Your task to perform on an android device: turn off smart reply in the gmail app Image 0: 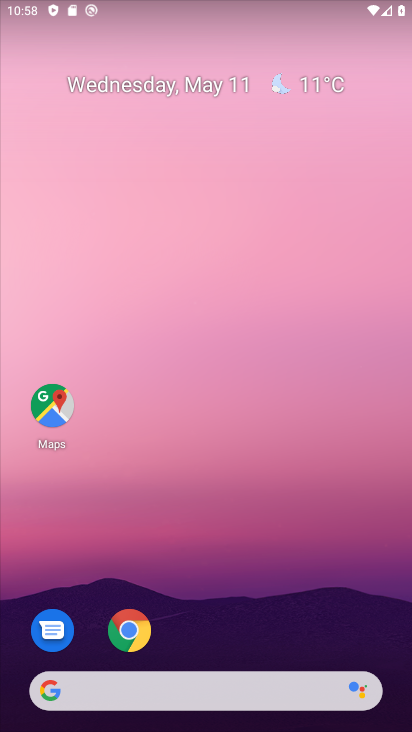
Step 0: drag from (186, 652) to (186, 298)
Your task to perform on an android device: turn off smart reply in the gmail app Image 1: 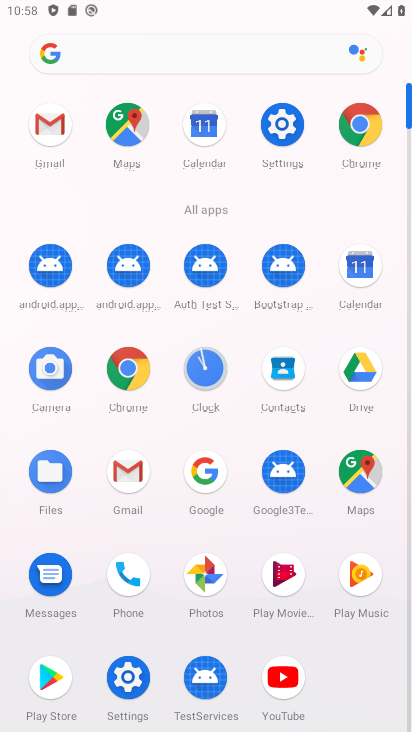
Step 1: click (129, 477)
Your task to perform on an android device: turn off smart reply in the gmail app Image 2: 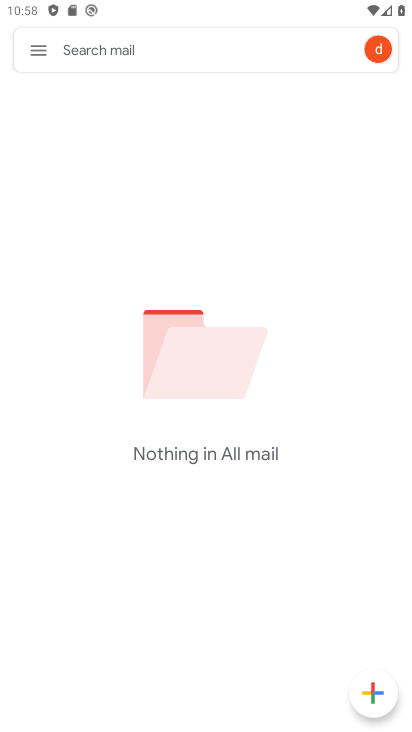
Step 2: click (37, 46)
Your task to perform on an android device: turn off smart reply in the gmail app Image 3: 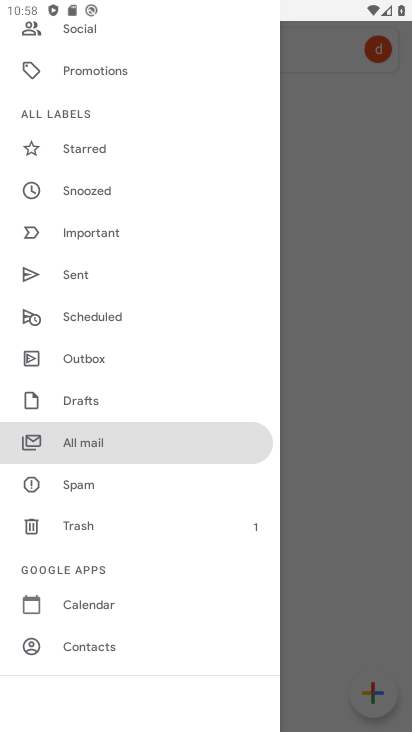
Step 3: drag from (113, 597) to (163, 154)
Your task to perform on an android device: turn off smart reply in the gmail app Image 4: 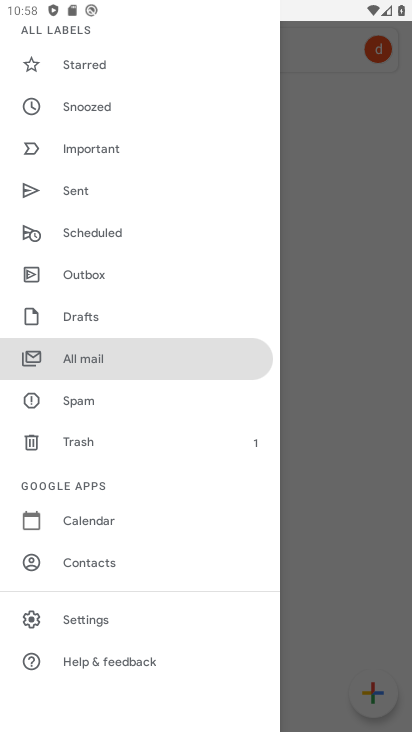
Step 4: click (82, 623)
Your task to perform on an android device: turn off smart reply in the gmail app Image 5: 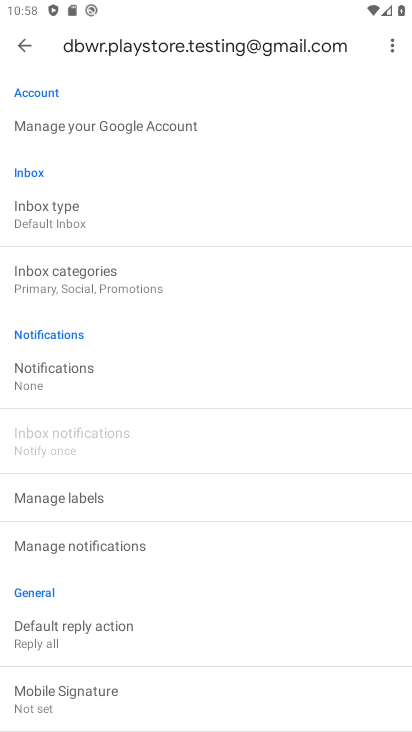
Step 5: drag from (122, 655) to (157, 255)
Your task to perform on an android device: turn off smart reply in the gmail app Image 6: 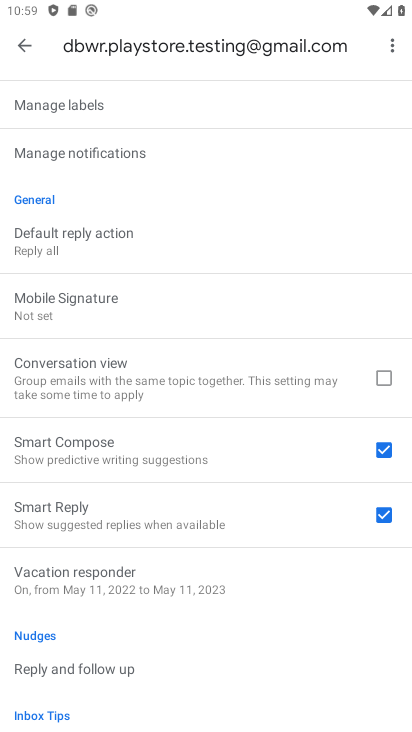
Step 6: click (380, 512)
Your task to perform on an android device: turn off smart reply in the gmail app Image 7: 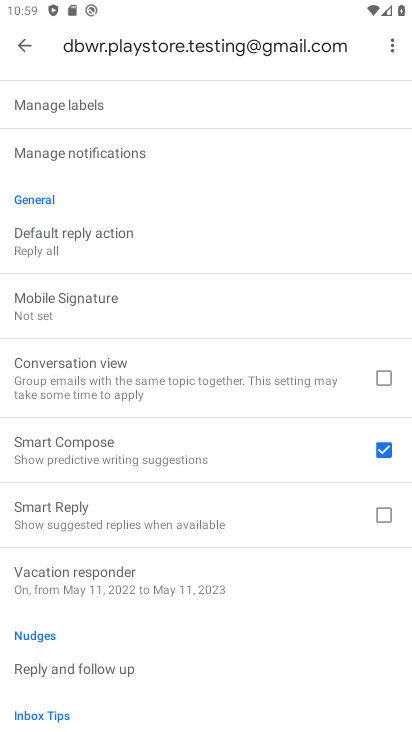
Step 7: task complete